Your task to perform on an android device: Open eBay Image 0: 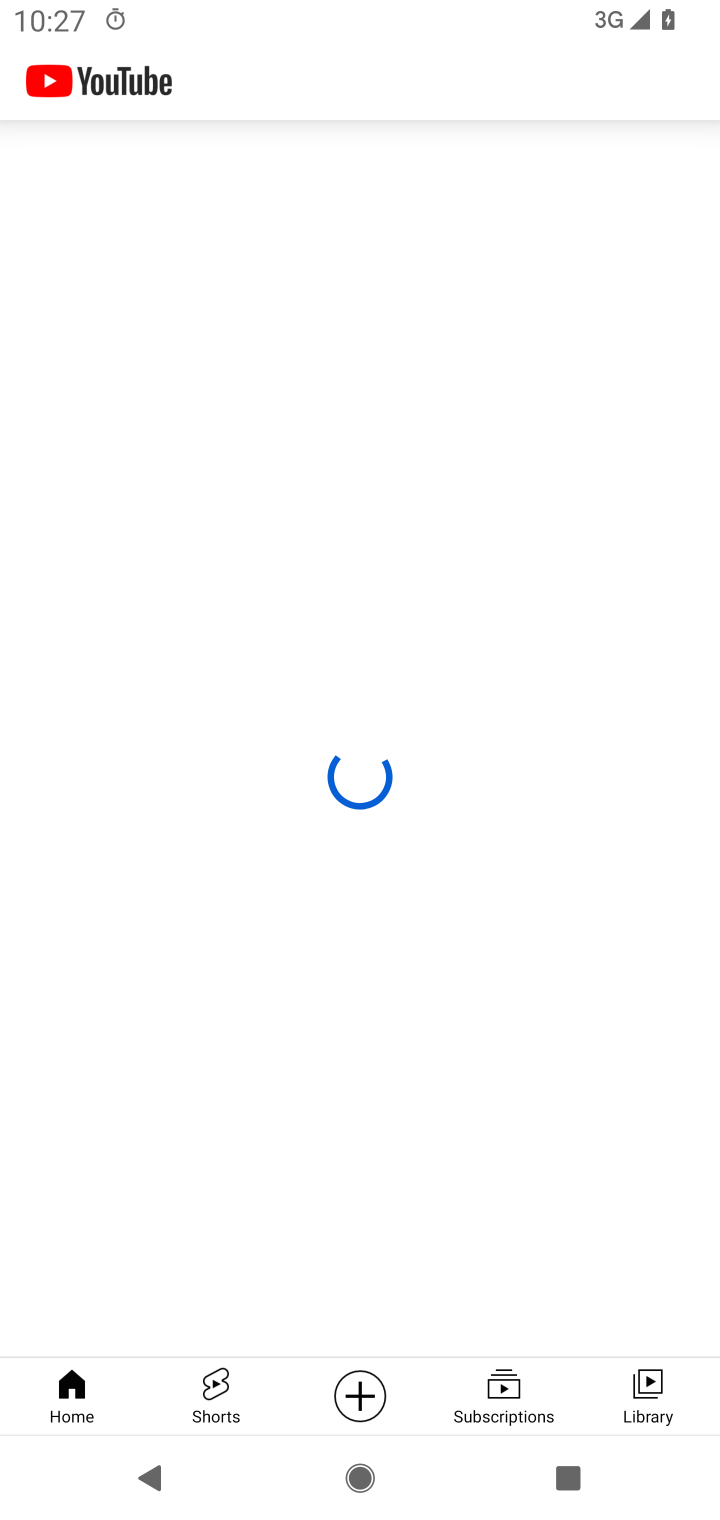
Step 0: press home button
Your task to perform on an android device: Open eBay Image 1: 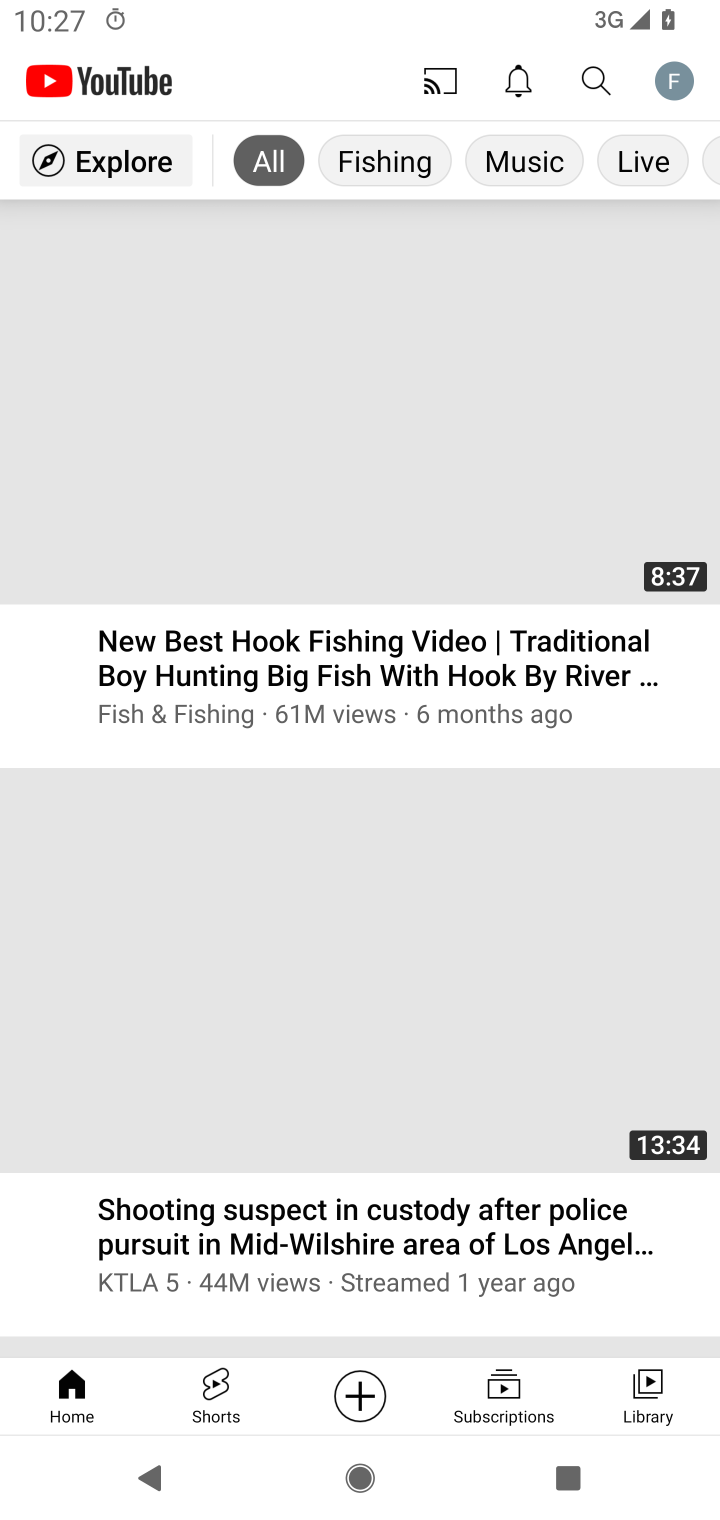
Step 1: press home button
Your task to perform on an android device: Open eBay Image 2: 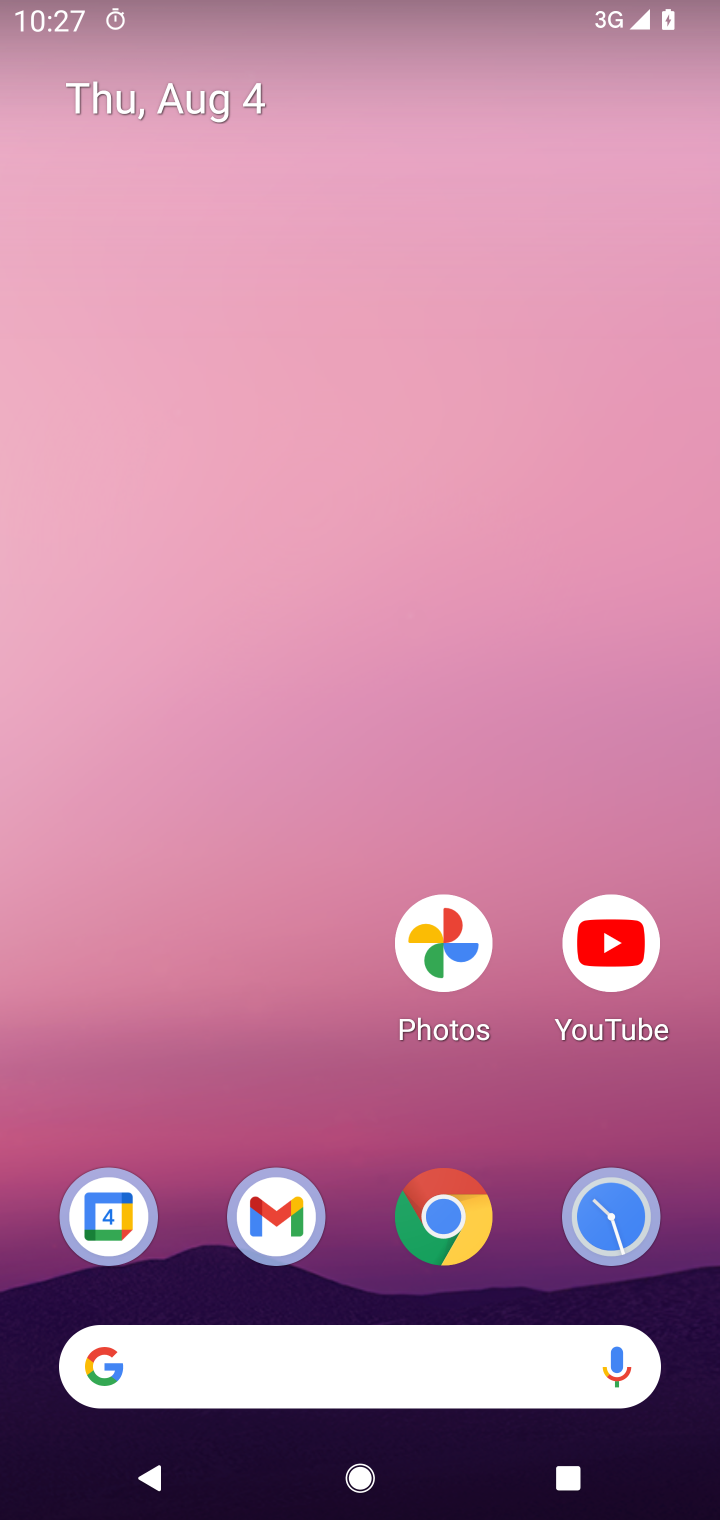
Step 2: click (455, 1213)
Your task to perform on an android device: Open eBay Image 3: 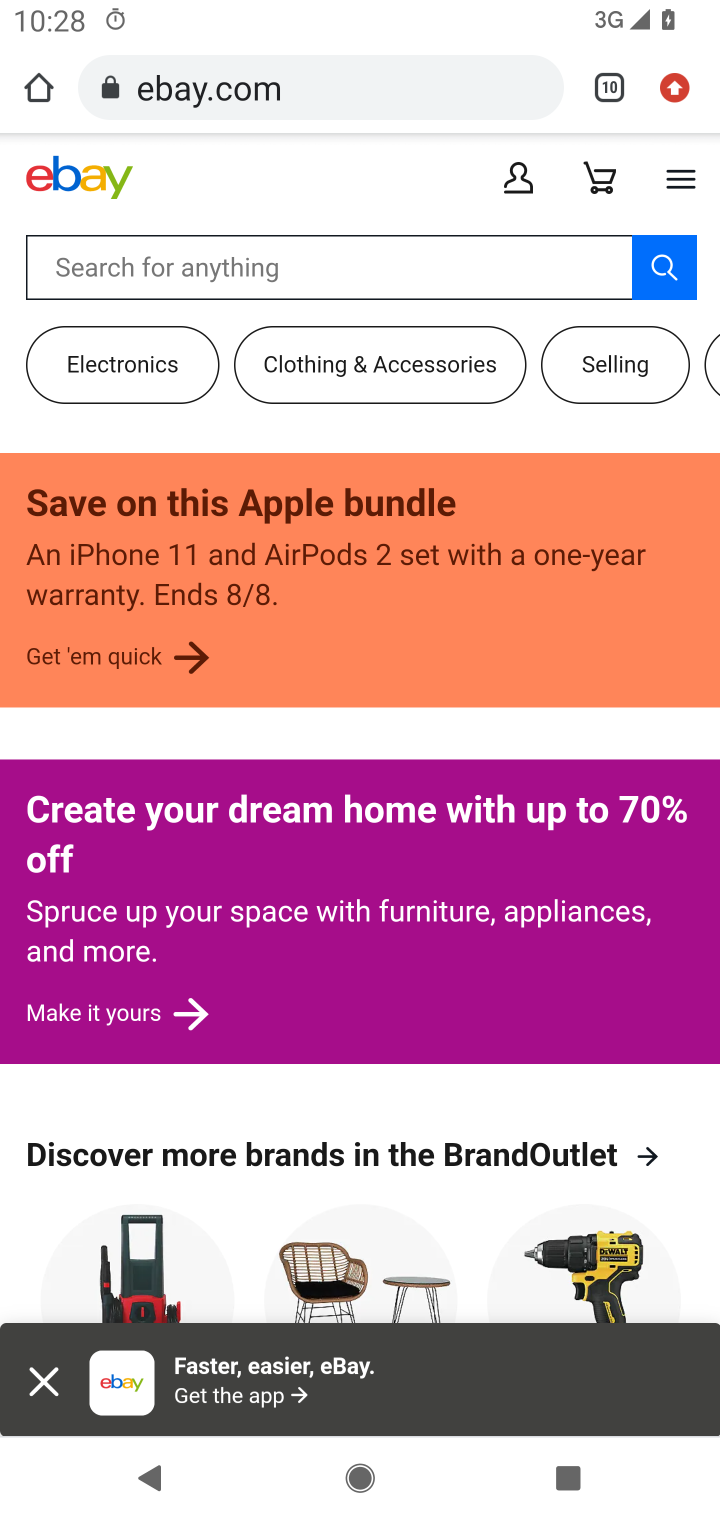
Step 3: task complete